Your task to perform on an android device: Search for "acer predator" on costco, select the first entry, add it to the cart, then select checkout. Image 0: 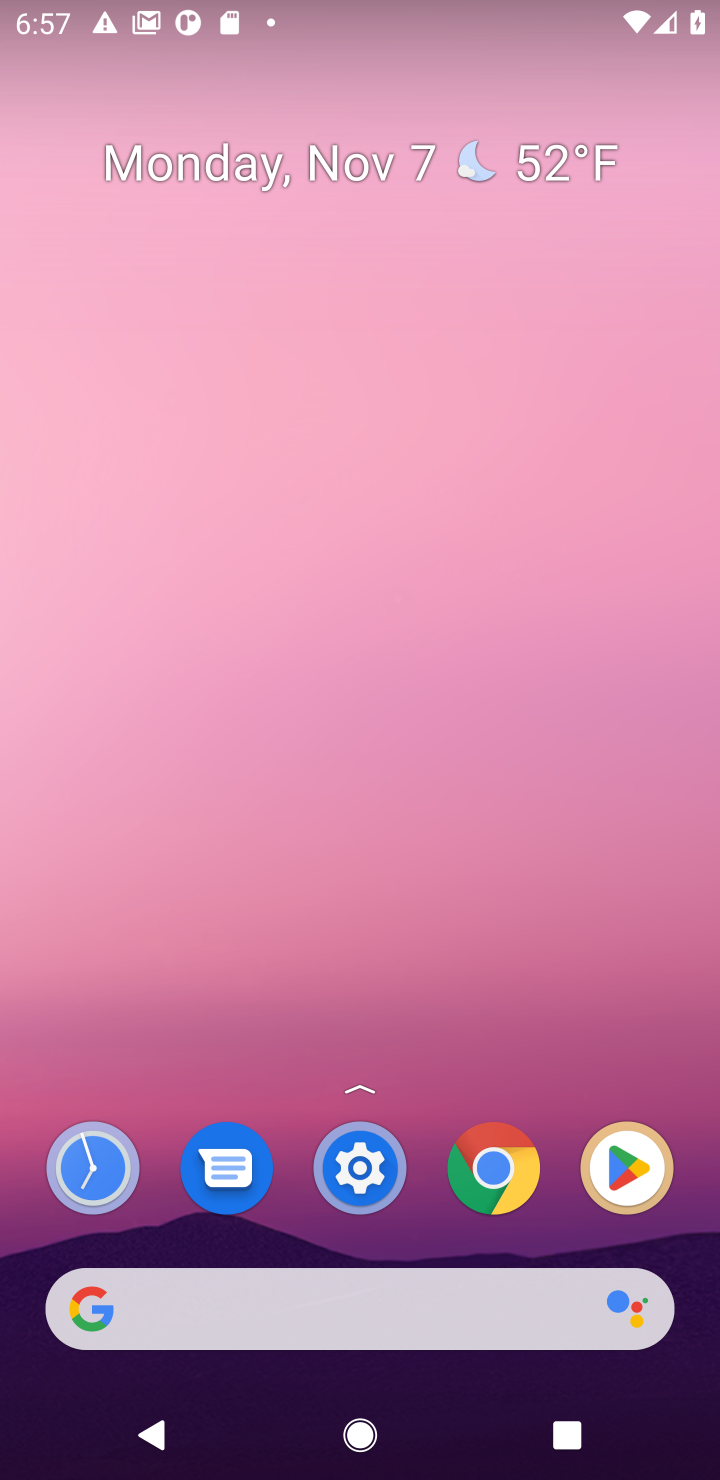
Step 0: click (312, 1339)
Your task to perform on an android device: Search for "acer predator" on costco, select the first entry, add it to the cart, then select checkout. Image 1: 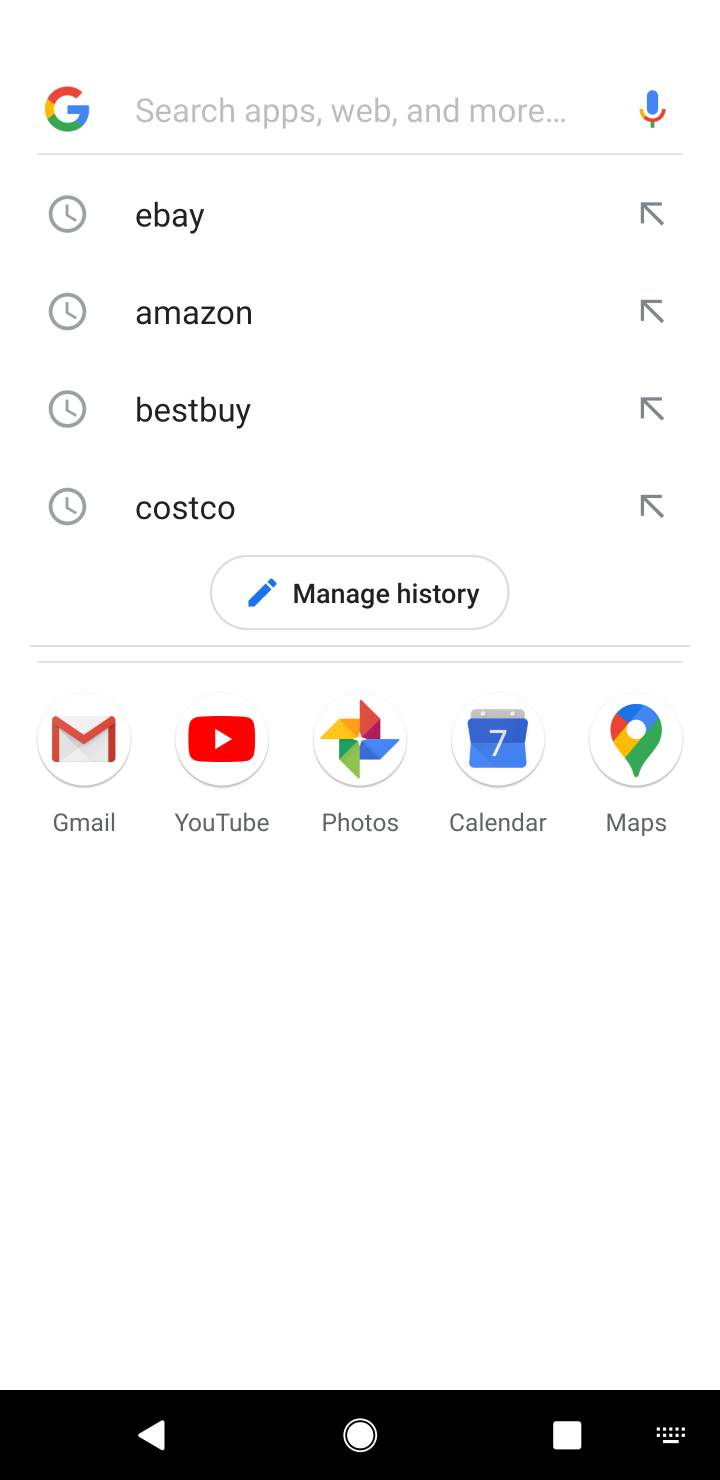
Step 1: type "costco"
Your task to perform on an android device: Search for "acer predator" on costco, select the first entry, add it to the cart, then select checkout. Image 2: 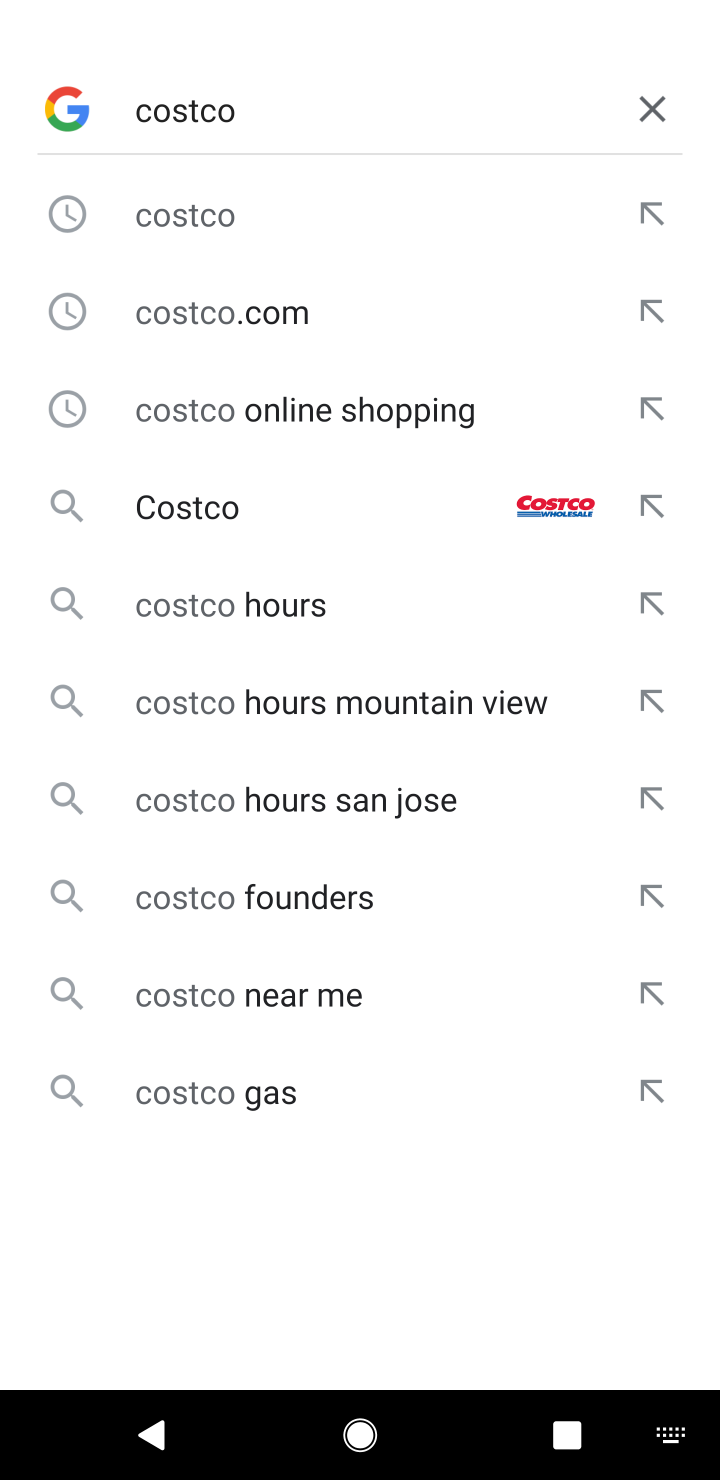
Step 2: type ""
Your task to perform on an android device: Search for "acer predator" on costco, select the first entry, add it to the cart, then select checkout. Image 3: 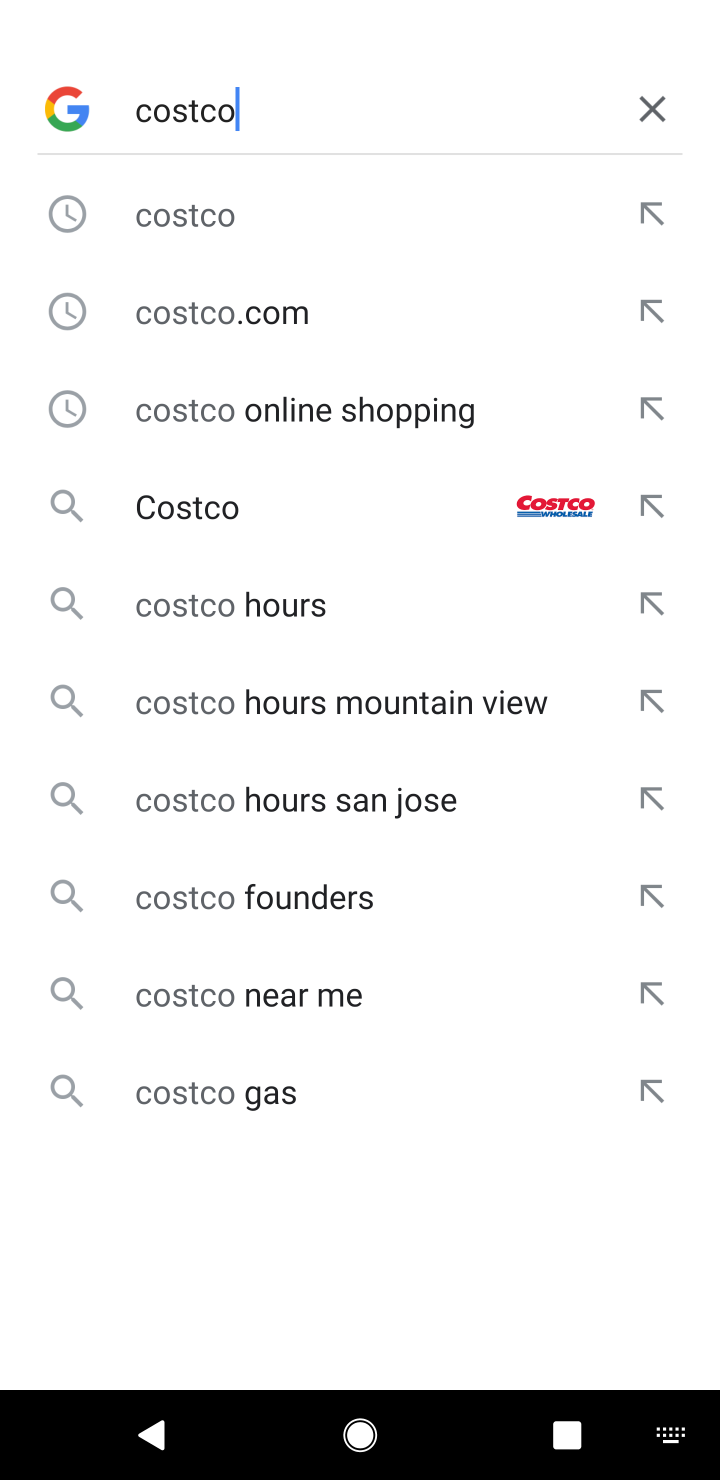
Step 3: click (280, 330)
Your task to perform on an android device: Search for "acer predator" on costco, select the first entry, add it to the cart, then select checkout. Image 4: 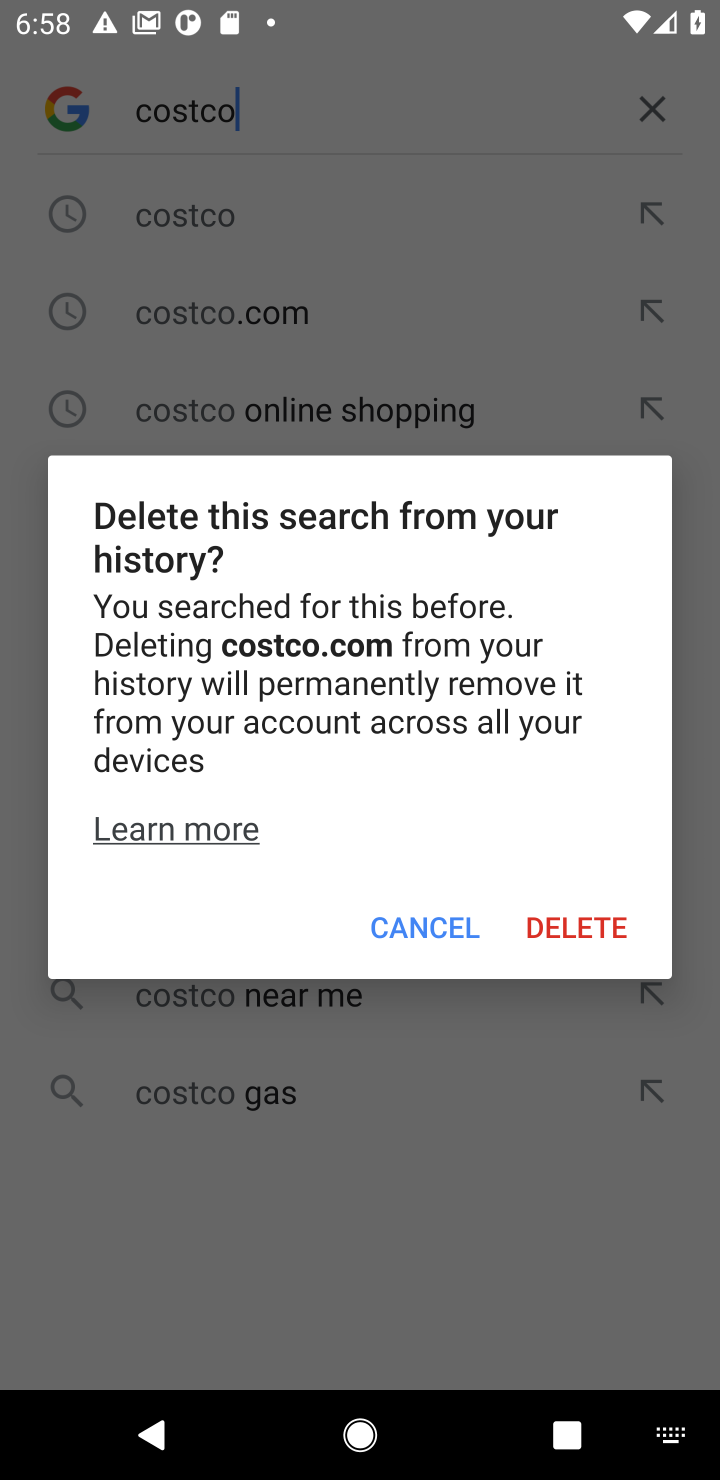
Step 4: click (475, 930)
Your task to perform on an android device: Search for "acer predator" on costco, select the first entry, add it to the cart, then select checkout. Image 5: 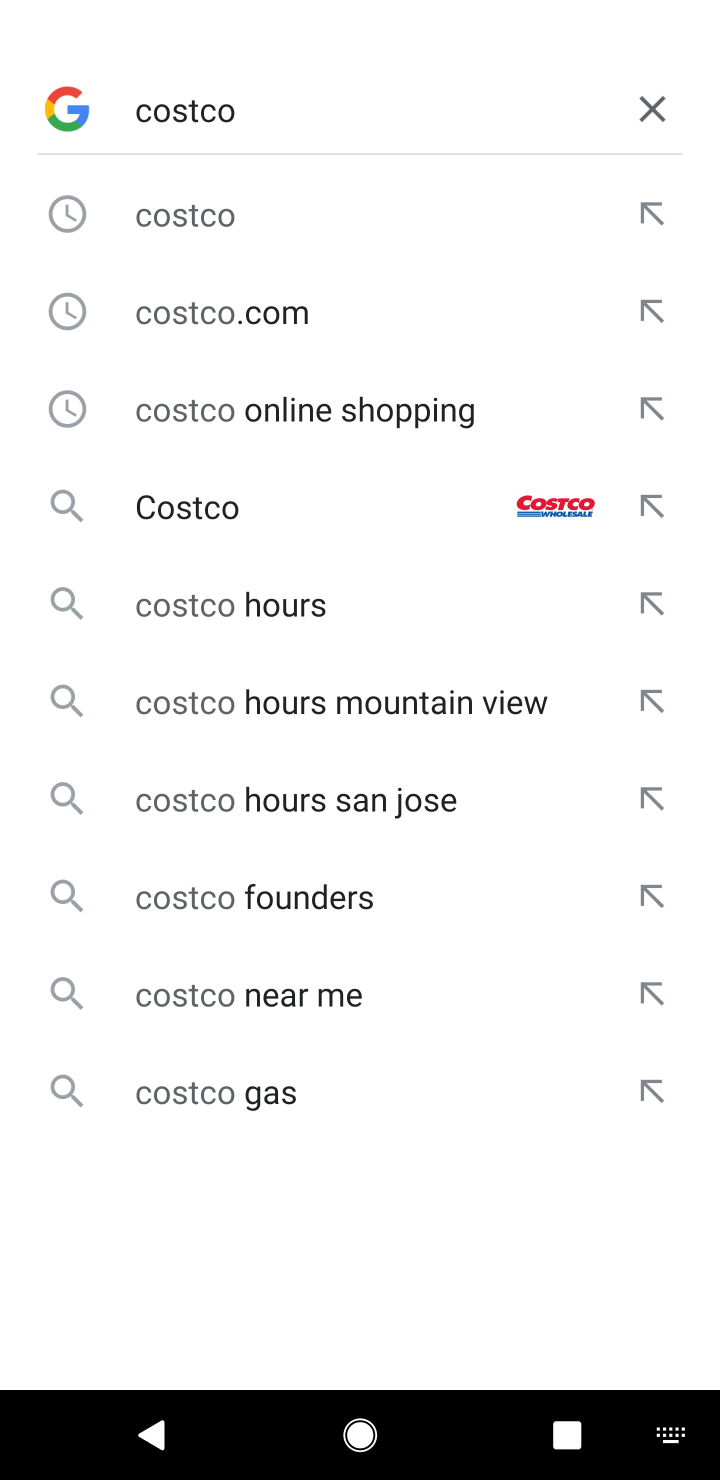
Step 5: press enter
Your task to perform on an android device: Search for "acer predator" on costco, select the first entry, add it to the cart, then select checkout. Image 6: 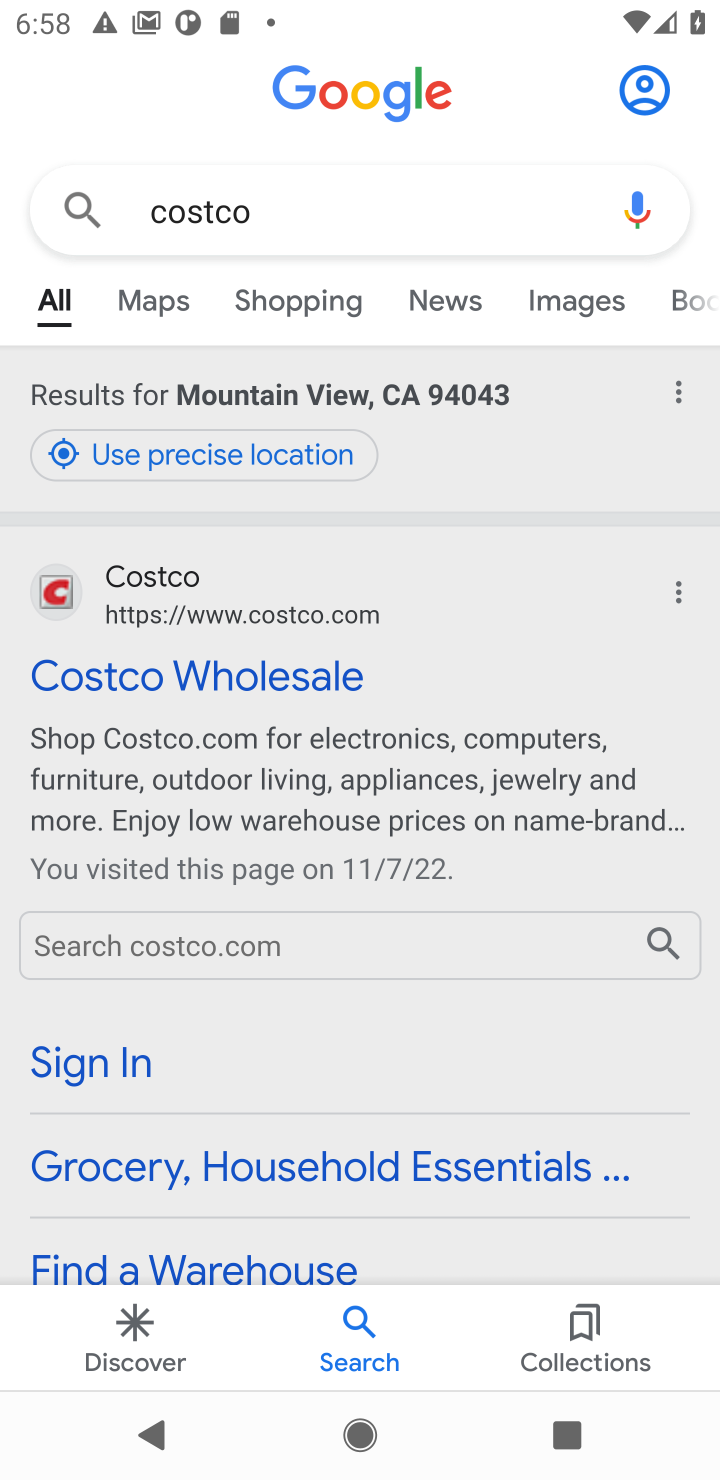
Step 6: click (106, 660)
Your task to perform on an android device: Search for "acer predator" on costco, select the first entry, add it to the cart, then select checkout. Image 7: 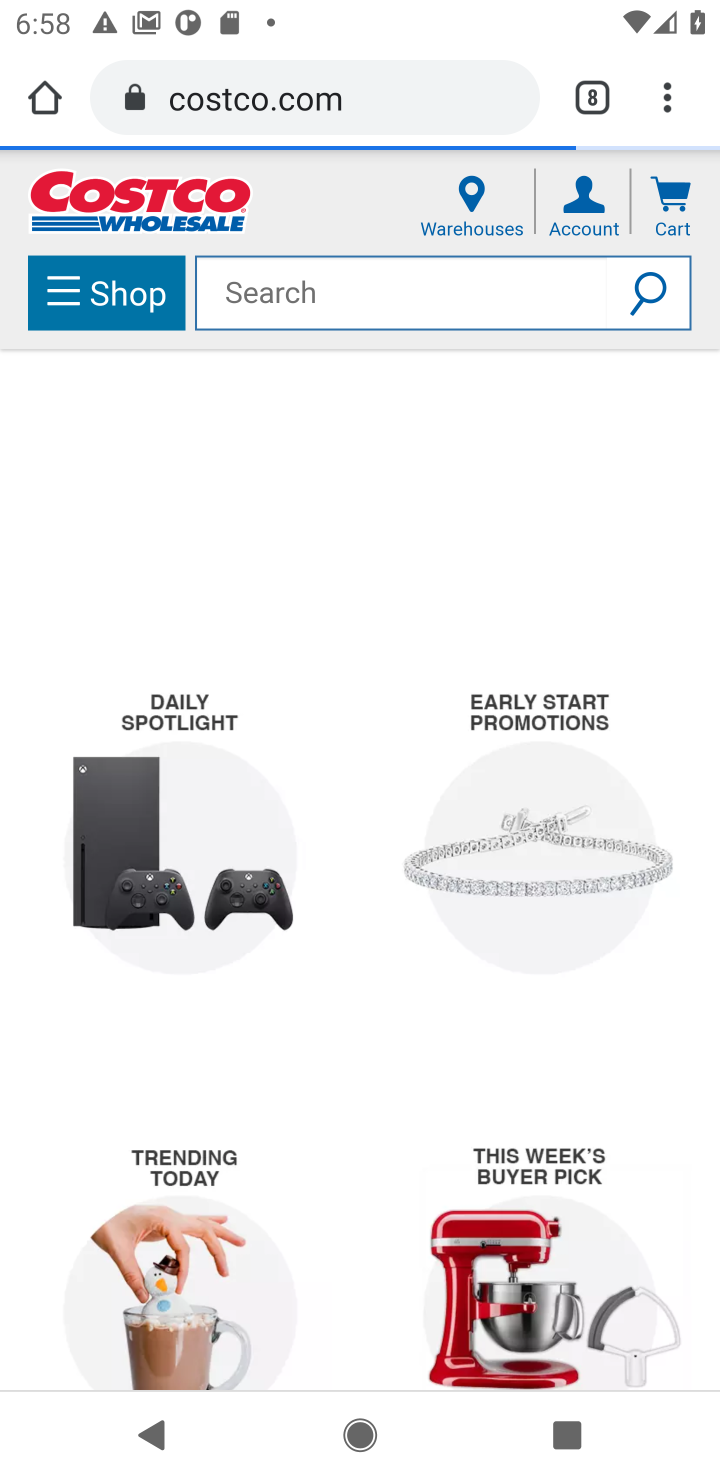
Step 7: click (373, 298)
Your task to perform on an android device: Search for "acer predator" on costco, select the first entry, add it to the cart, then select checkout. Image 8: 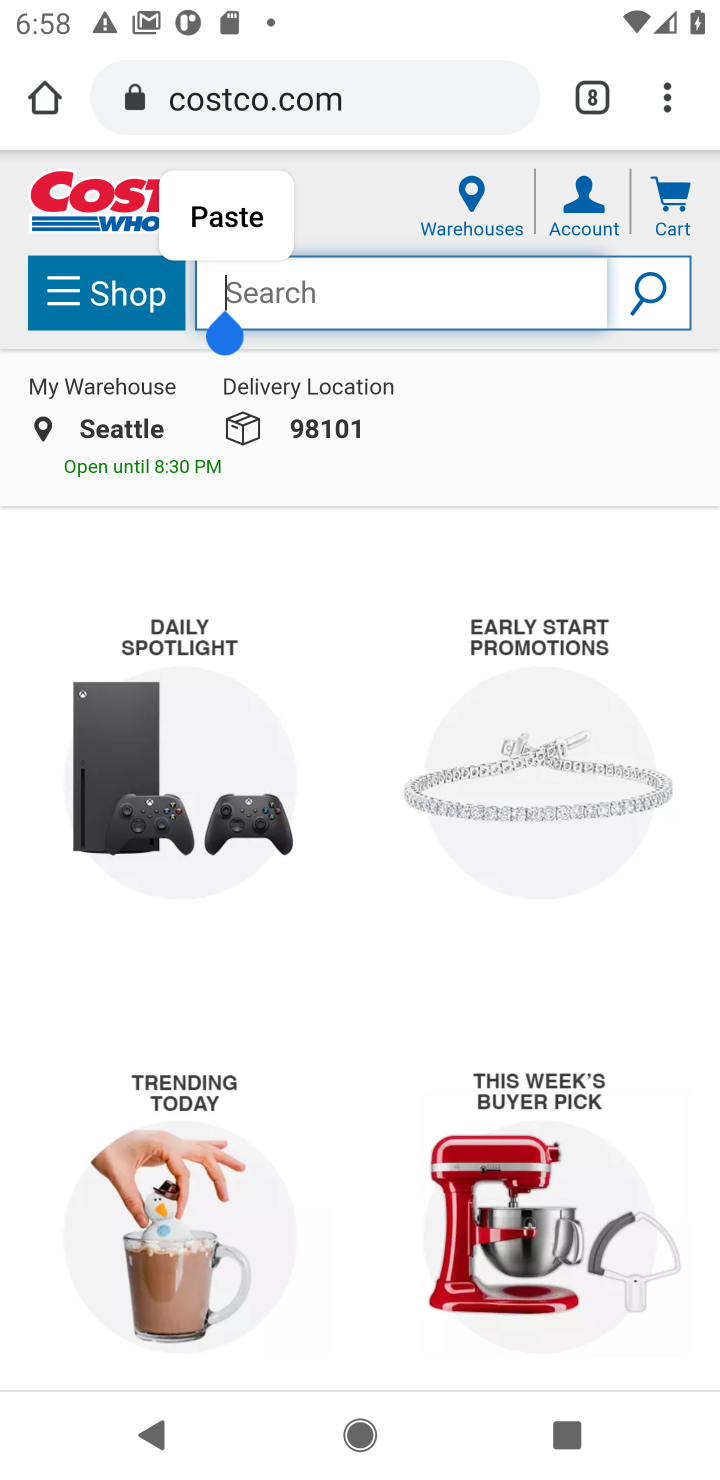
Step 8: type "acer predato"
Your task to perform on an android device: Search for "acer predator" on costco, select the first entry, add it to the cart, then select checkout. Image 9: 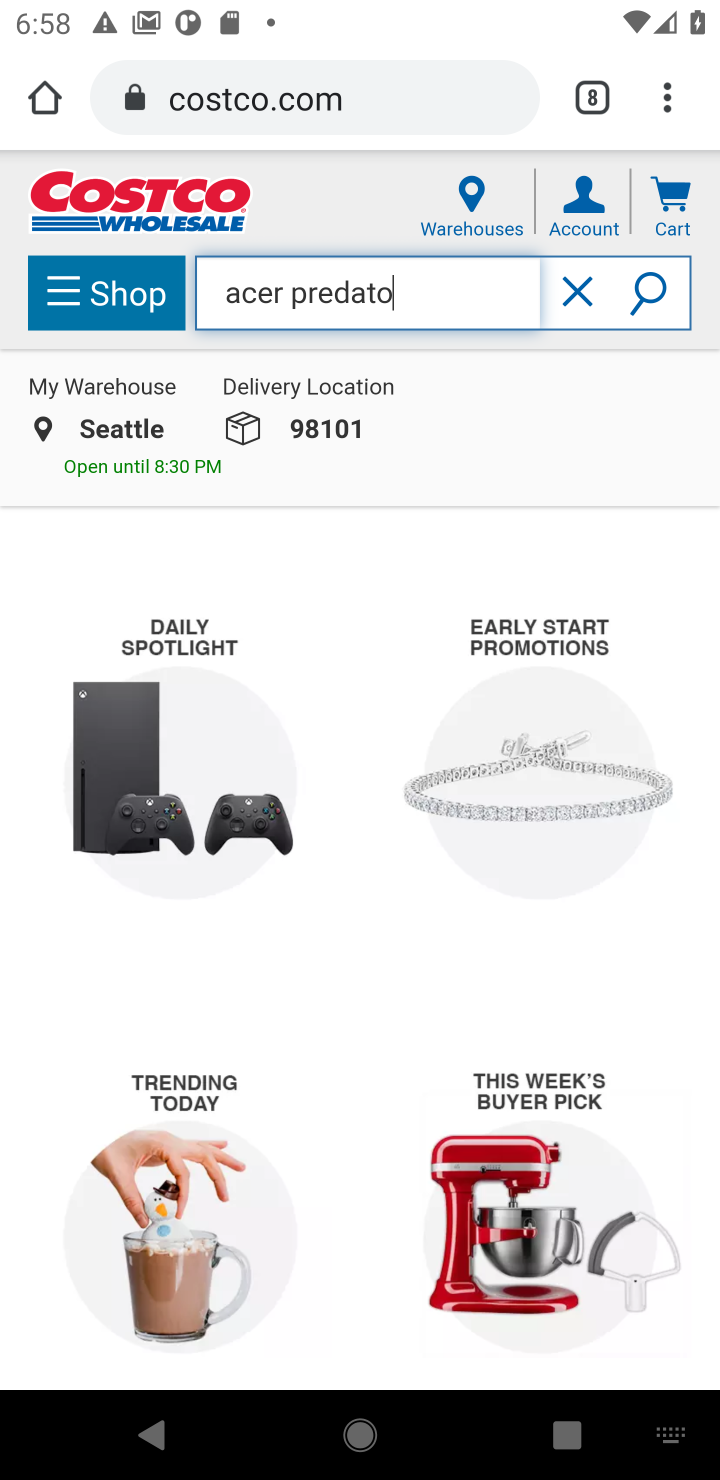
Step 9: type ""
Your task to perform on an android device: Search for "acer predator" on costco, select the first entry, add it to the cart, then select checkout. Image 10: 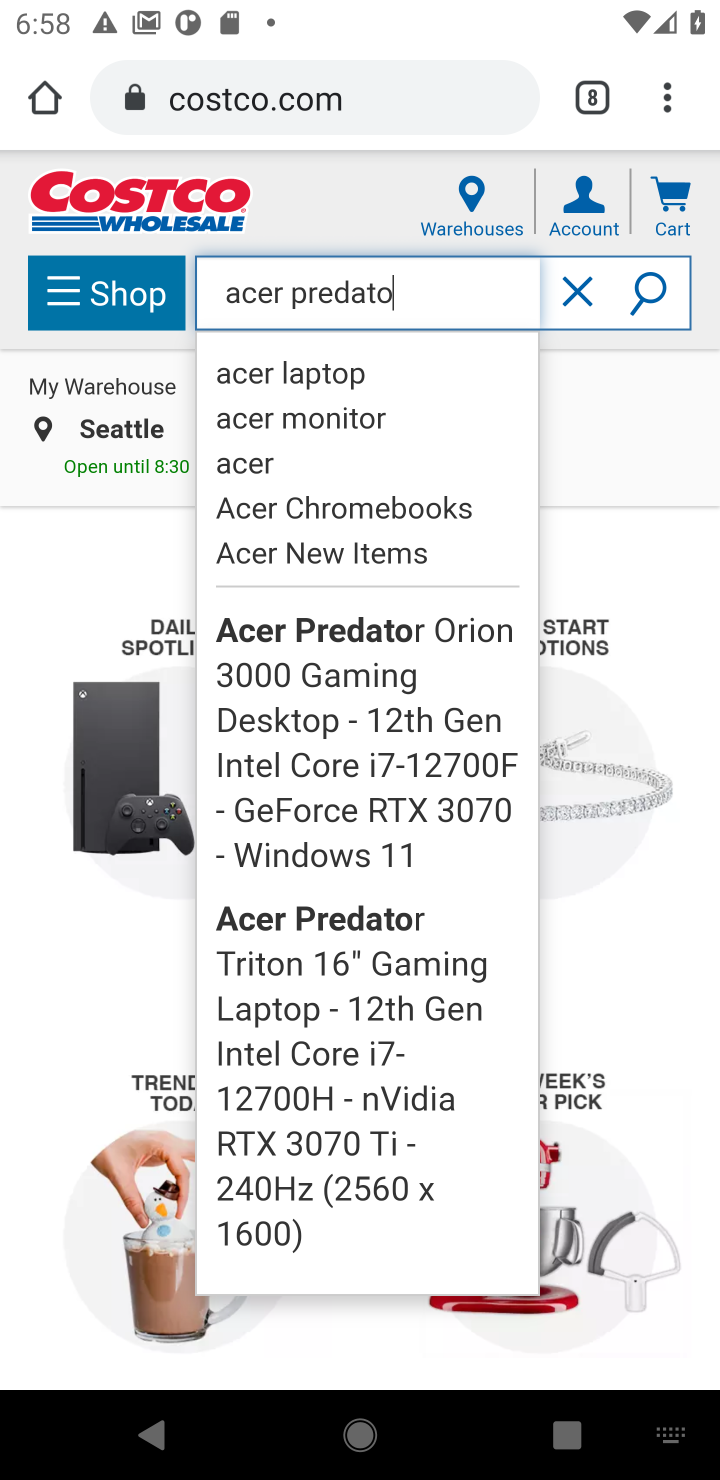
Step 10: click (620, 300)
Your task to perform on an android device: Search for "acer predator" on costco, select the first entry, add it to the cart, then select checkout. Image 11: 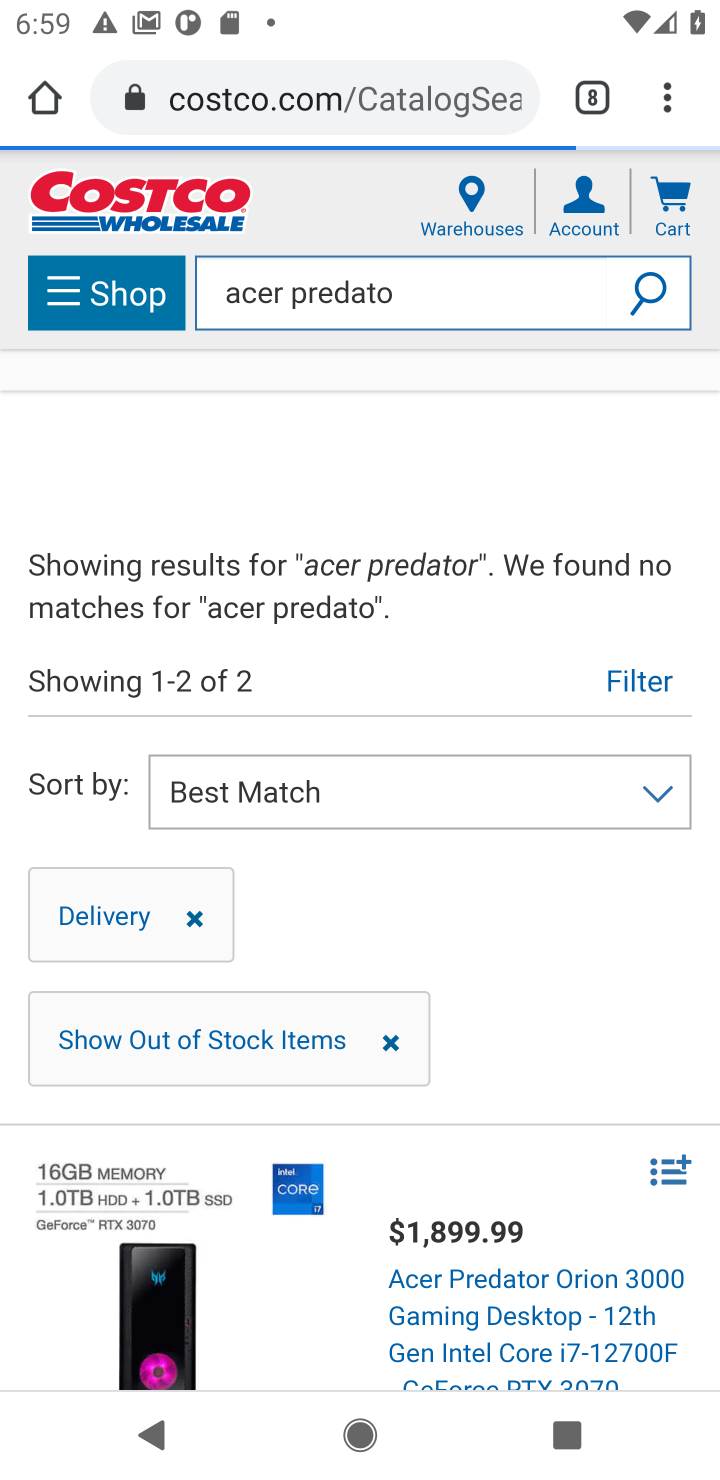
Step 11: drag from (510, 974) to (498, 776)
Your task to perform on an android device: Search for "acer predator" on costco, select the first entry, add it to the cart, then select checkout. Image 12: 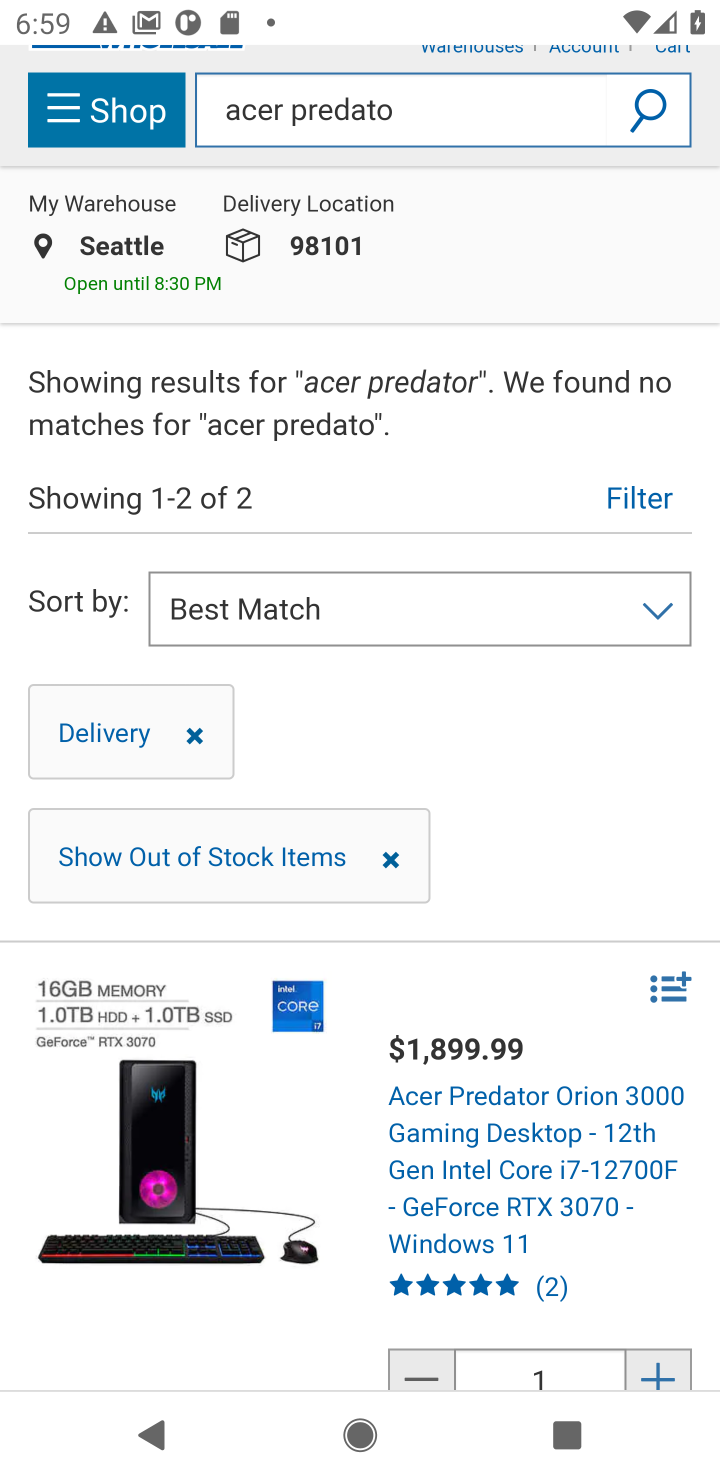
Step 12: click (510, 1137)
Your task to perform on an android device: Search for "acer predator" on costco, select the first entry, add it to the cart, then select checkout. Image 13: 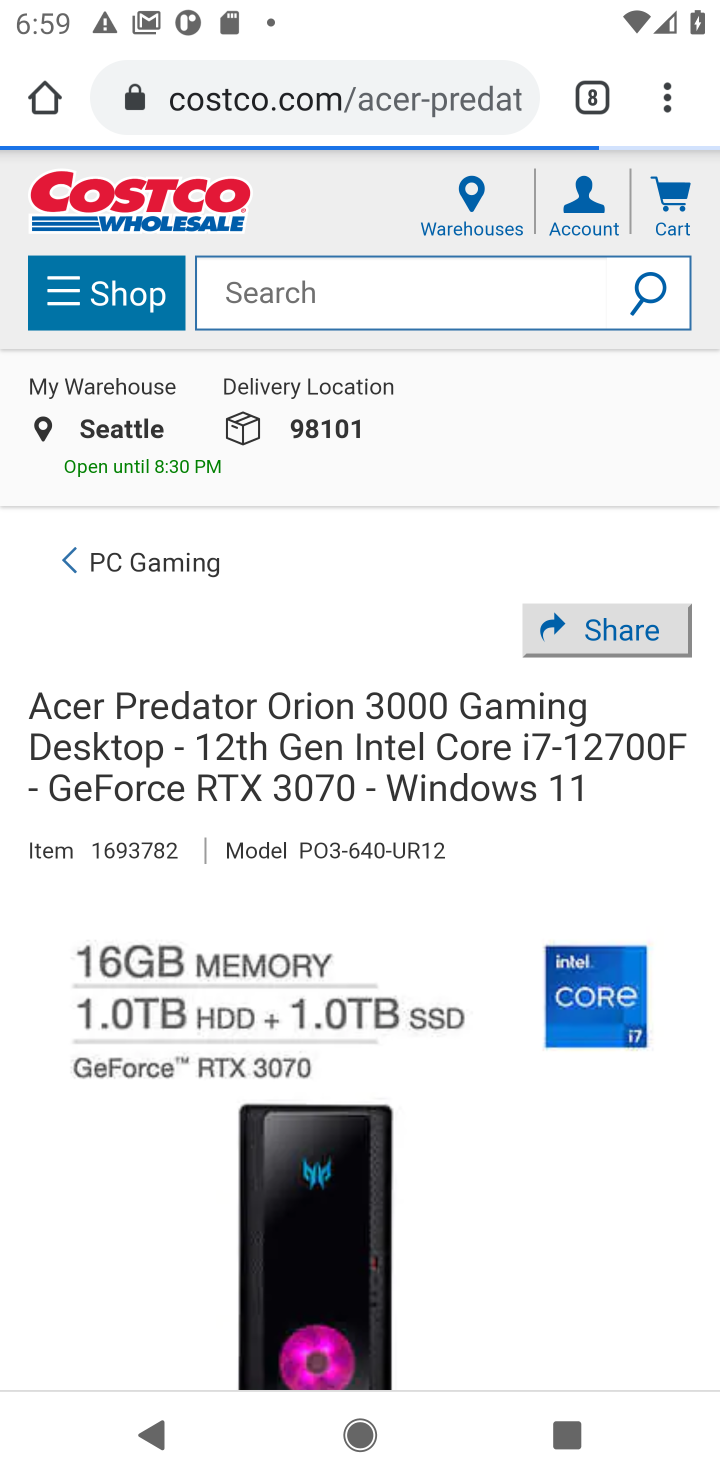
Step 13: drag from (523, 1116) to (425, 553)
Your task to perform on an android device: Search for "acer predator" on costco, select the first entry, add it to the cart, then select checkout. Image 14: 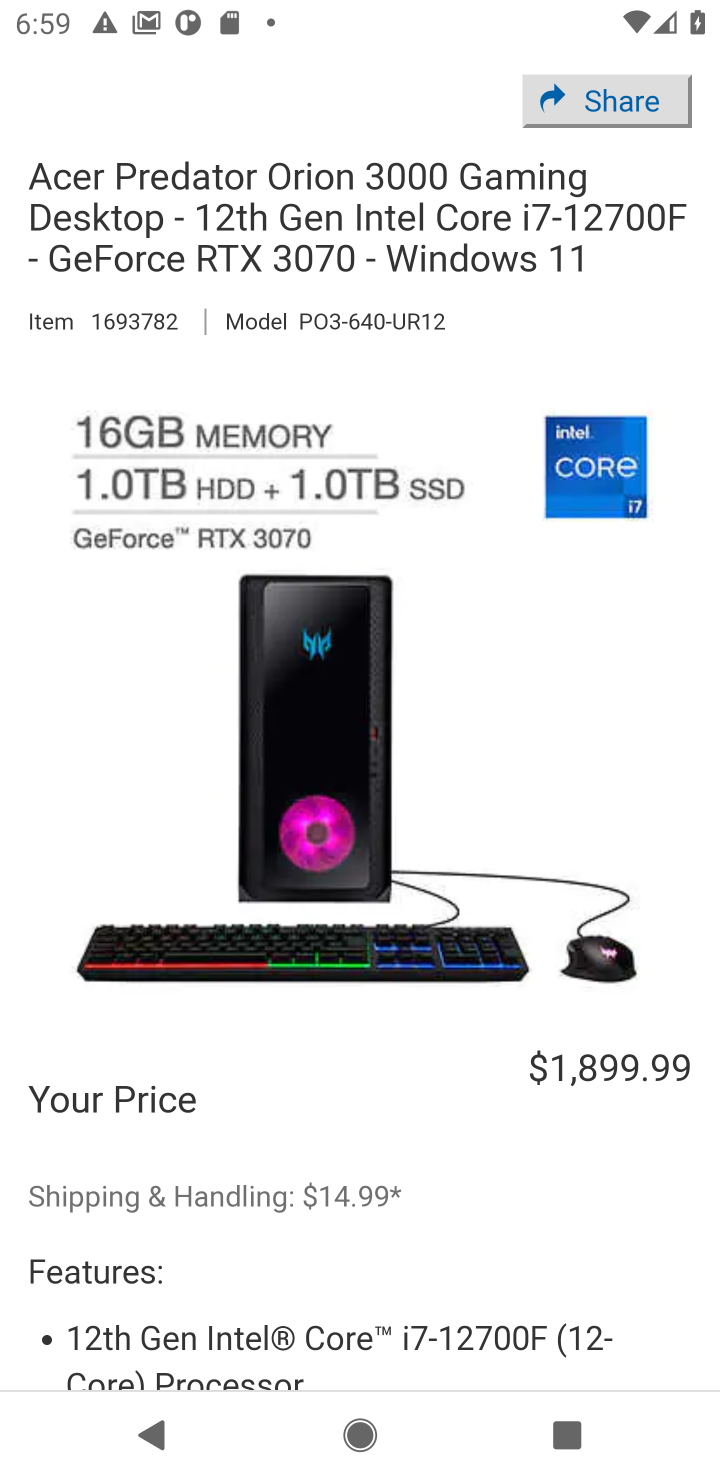
Step 14: drag from (578, 1171) to (403, 262)
Your task to perform on an android device: Search for "acer predator" on costco, select the first entry, add it to the cart, then select checkout. Image 15: 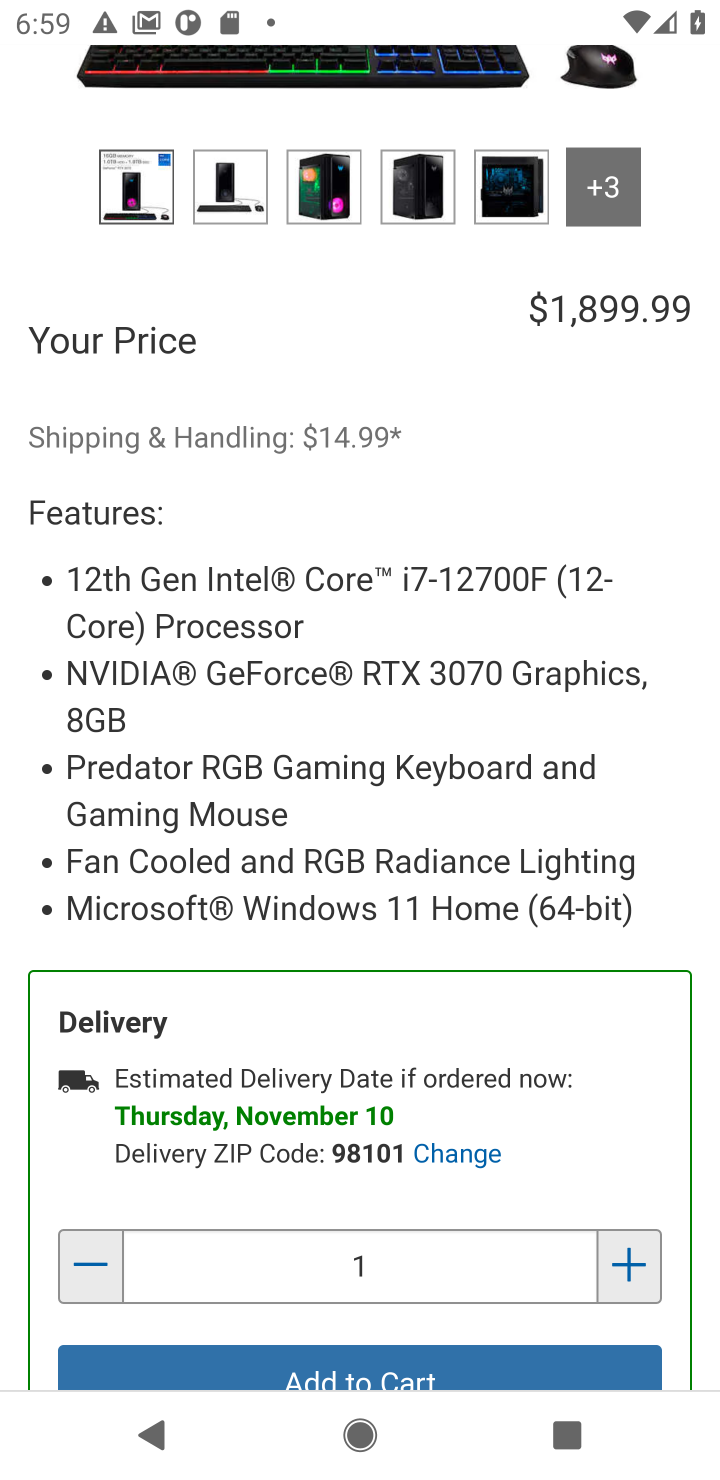
Step 15: drag from (399, 920) to (366, 593)
Your task to perform on an android device: Search for "acer predator" on costco, select the first entry, add it to the cart, then select checkout. Image 16: 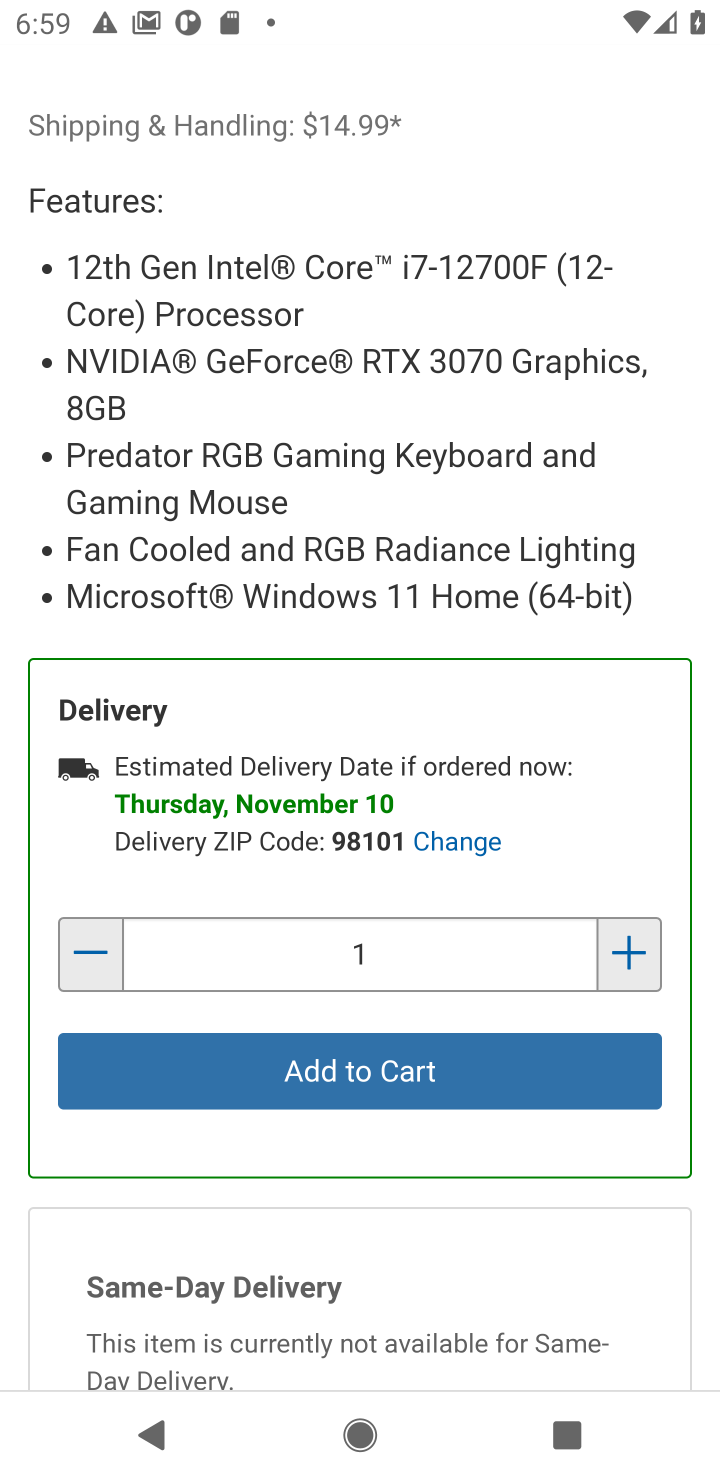
Step 16: click (509, 1070)
Your task to perform on an android device: Search for "acer predator" on costco, select the first entry, add it to the cart, then select checkout. Image 17: 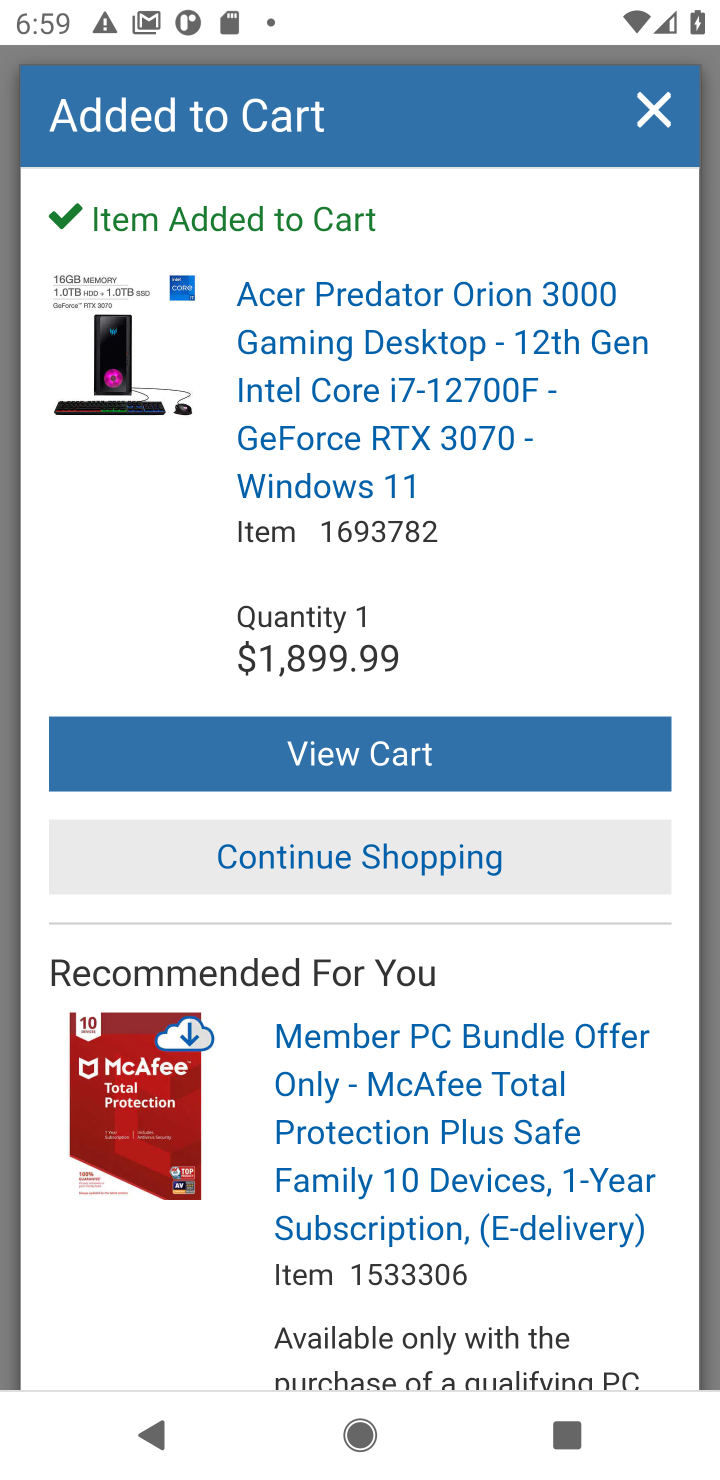
Step 17: click (416, 754)
Your task to perform on an android device: Search for "acer predator" on costco, select the first entry, add it to the cart, then select checkout. Image 18: 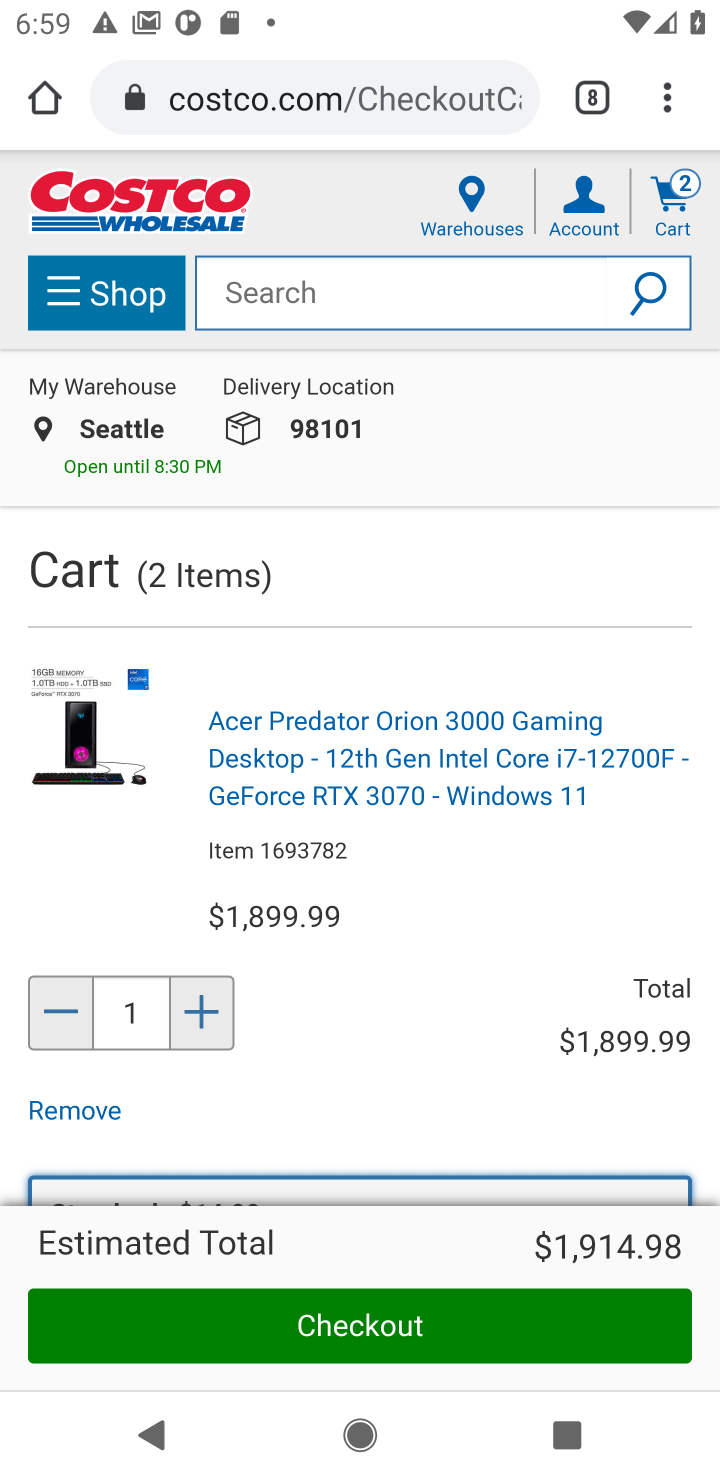
Step 18: click (381, 1341)
Your task to perform on an android device: Search for "acer predator" on costco, select the first entry, add it to the cart, then select checkout. Image 19: 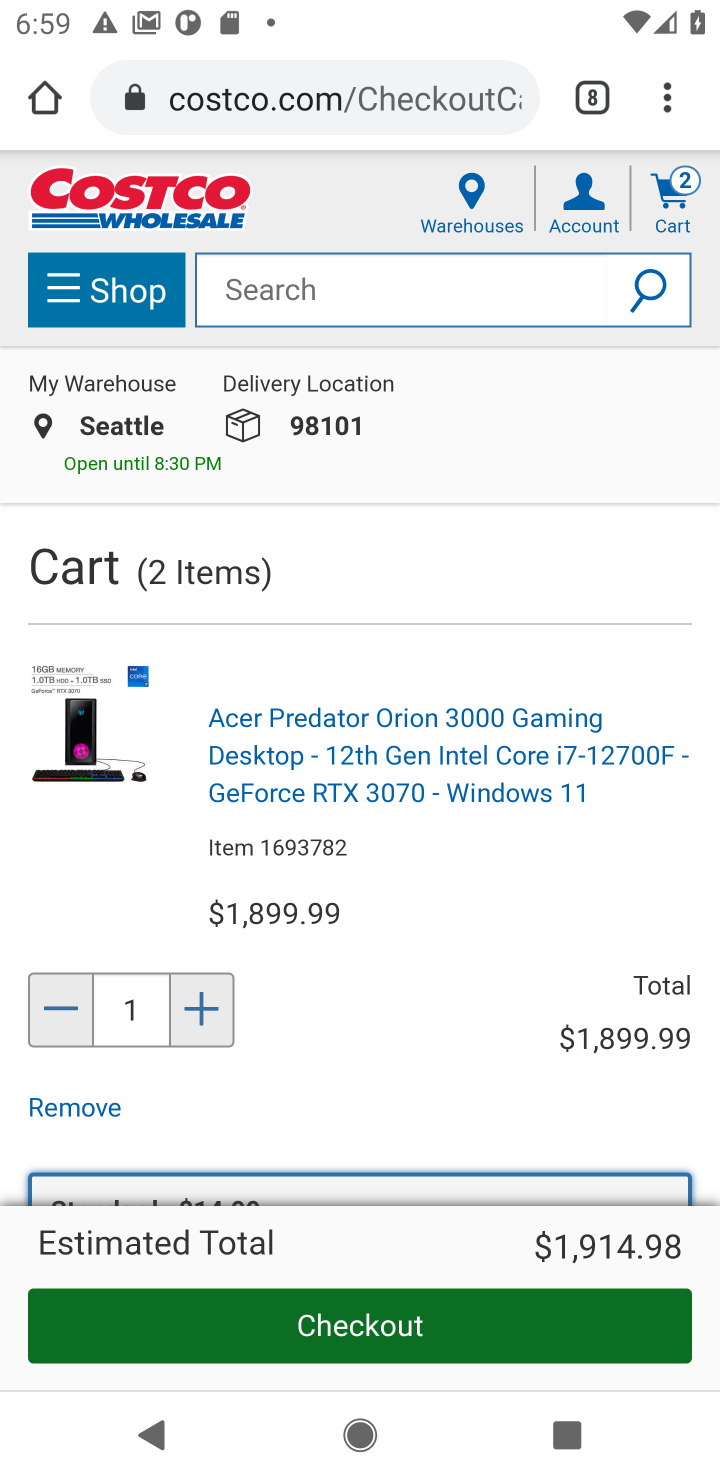
Step 19: click (437, 1335)
Your task to perform on an android device: Search for "acer predator" on costco, select the first entry, add it to the cart, then select checkout. Image 20: 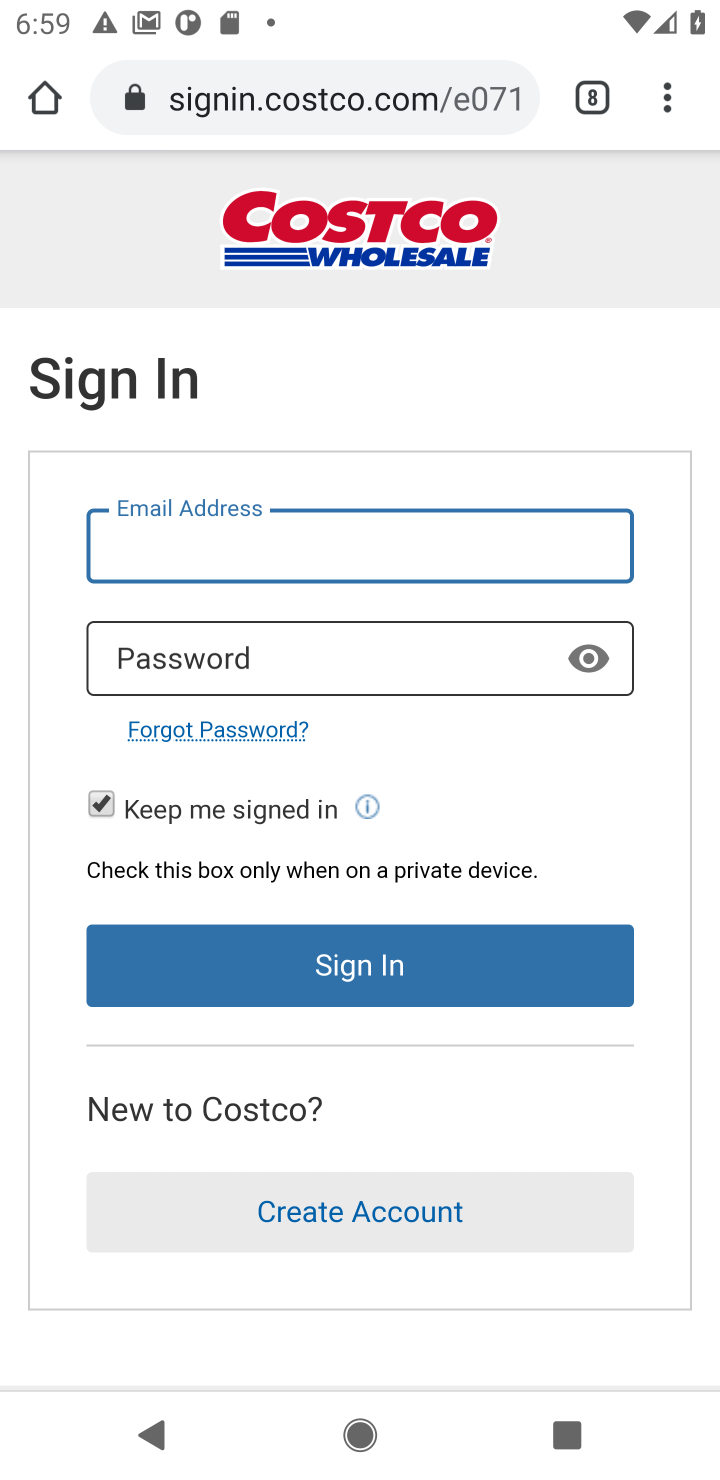
Step 20: task complete